Your task to perform on an android device: Go to privacy settings Image 0: 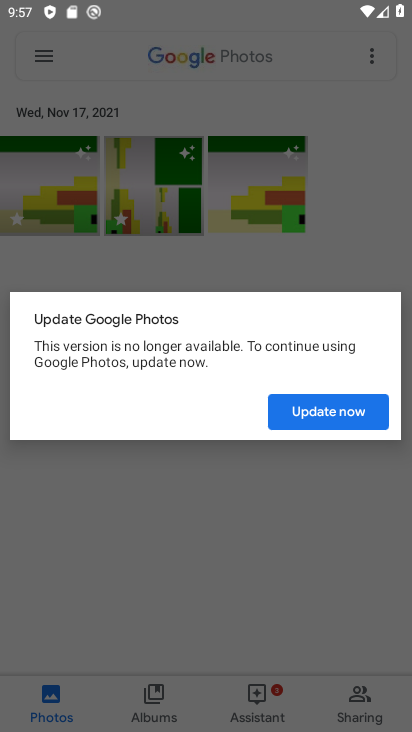
Step 0: press home button
Your task to perform on an android device: Go to privacy settings Image 1: 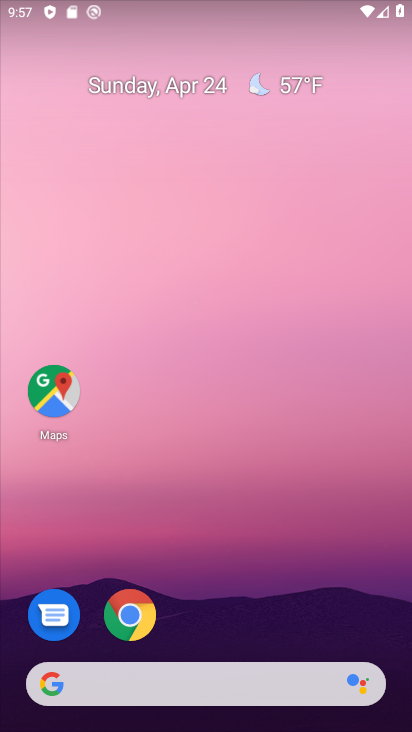
Step 1: drag from (354, 489) to (315, 83)
Your task to perform on an android device: Go to privacy settings Image 2: 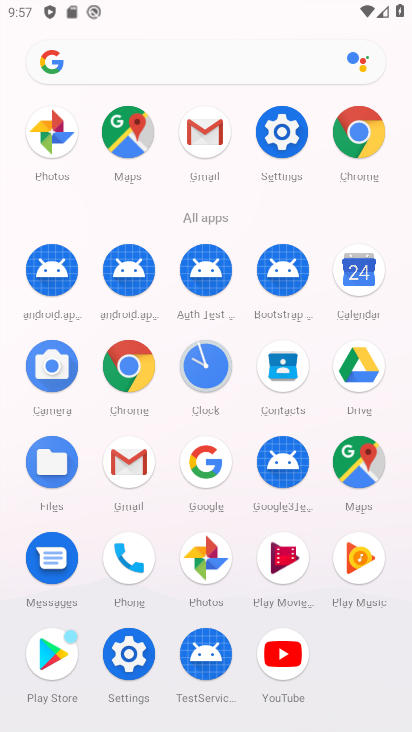
Step 2: click (123, 648)
Your task to perform on an android device: Go to privacy settings Image 3: 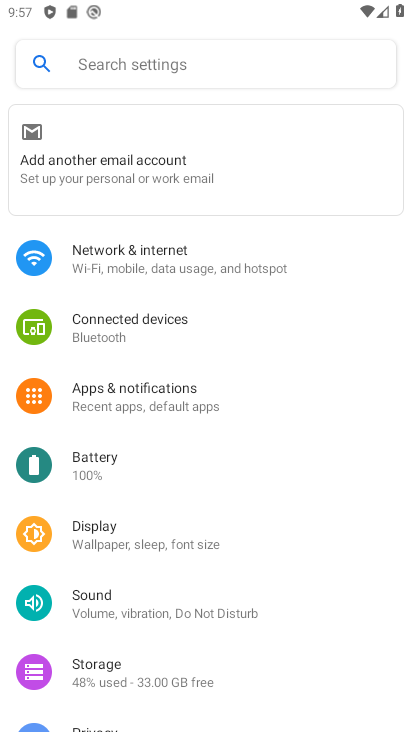
Step 3: drag from (302, 647) to (293, 258)
Your task to perform on an android device: Go to privacy settings Image 4: 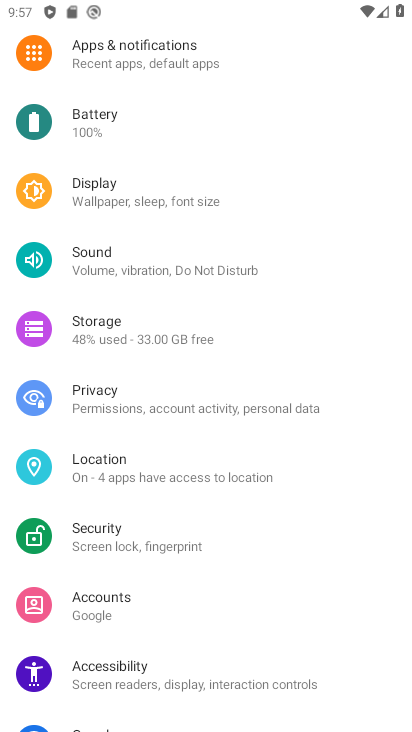
Step 4: click (90, 394)
Your task to perform on an android device: Go to privacy settings Image 5: 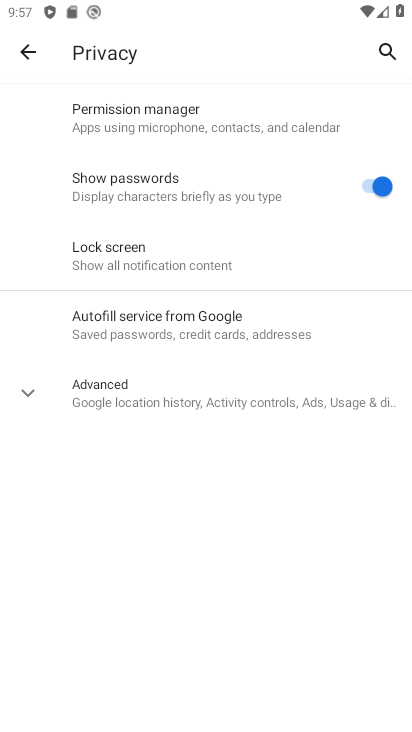
Step 5: click (32, 388)
Your task to perform on an android device: Go to privacy settings Image 6: 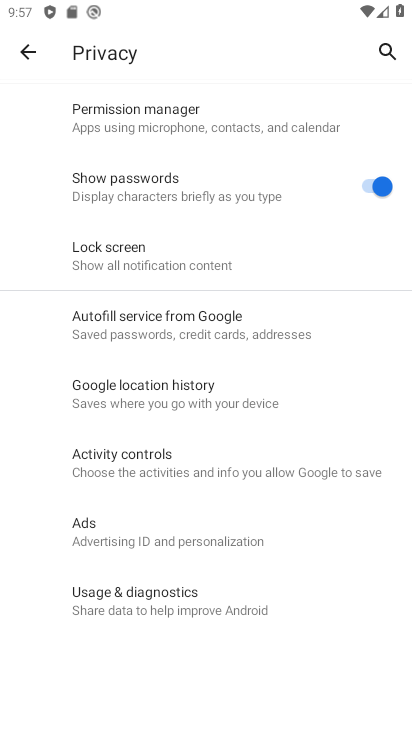
Step 6: task complete